Your task to perform on an android device: toggle notifications settings in the gmail app Image 0: 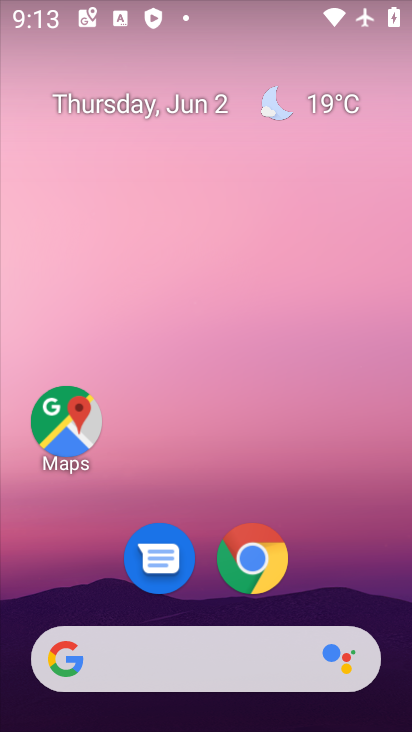
Step 0: drag from (393, 618) to (300, 92)
Your task to perform on an android device: toggle notifications settings in the gmail app Image 1: 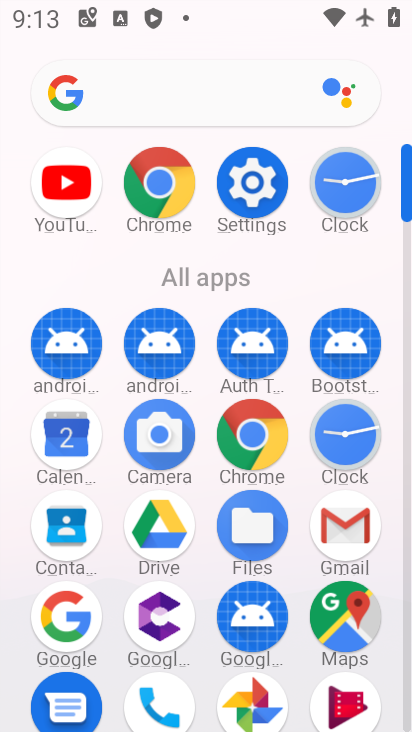
Step 1: click (342, 528)
Your task to perform on an android device: toggle notifications settings in the gmail app Image 2: 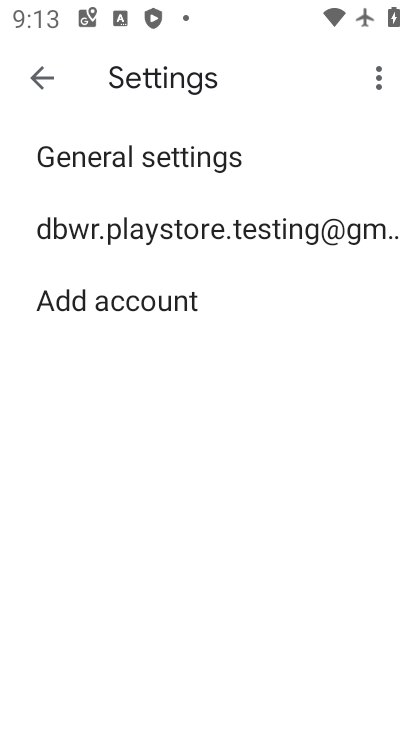
Step 2: click (202, 237)
Your task to perform on an android device: toggle notifications settings in the gmail app Image 3: 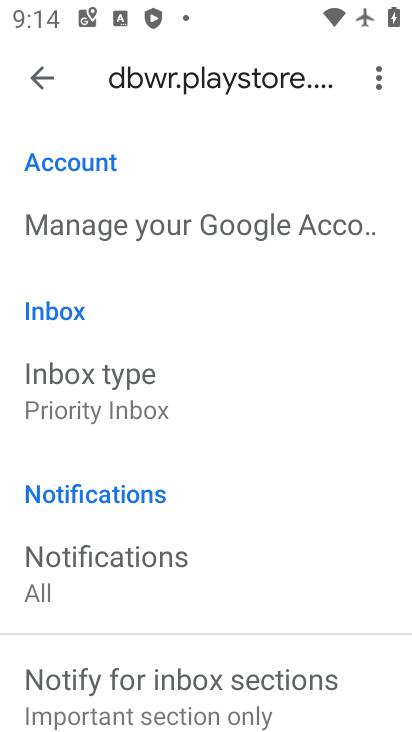
Step 3: drag from (218, 578) to (248, 237)
Your task to perform on an android device: toggle notifications settings in the gmail app Image 4: 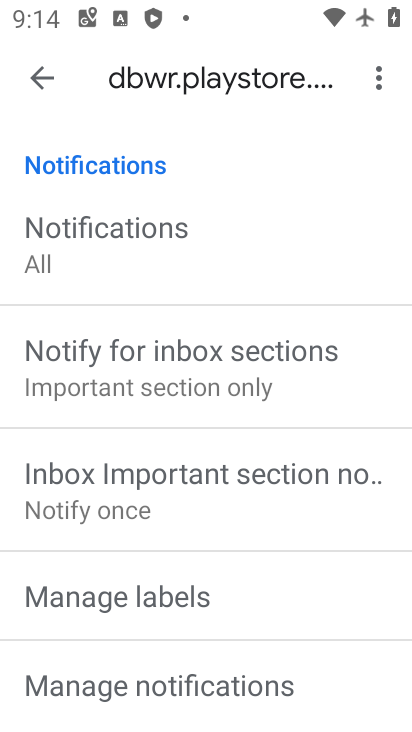
Step 4: drag from (232, 585) to (250, 116)
Your task to perform on an android device: toggle notifications settings in the gmail app Image 5: 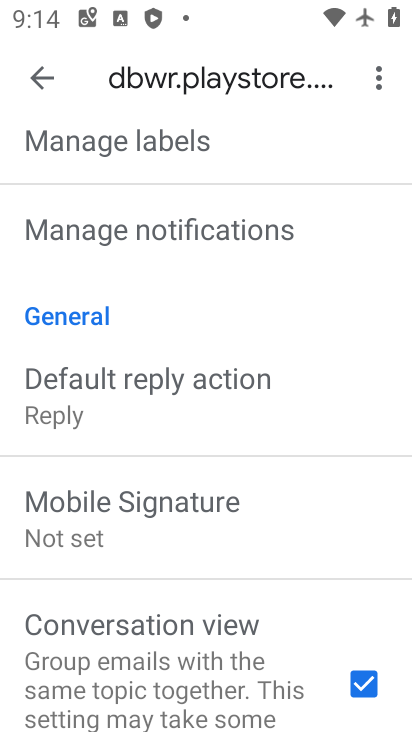
Step 5: click (149, 237)
Your task to perform on an android device: toggle notifications settings in the gmail app Image 6: 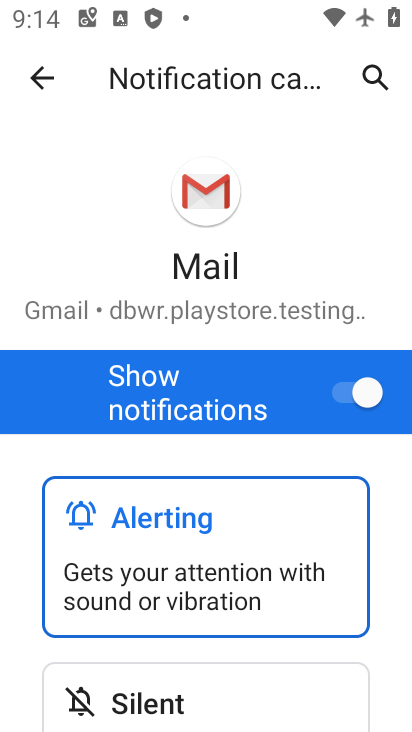
Step 6: drag from (382, 621) to (371, 498)
Your task to perform on an android device: toggle notifications settings in the gmail app Image 7: 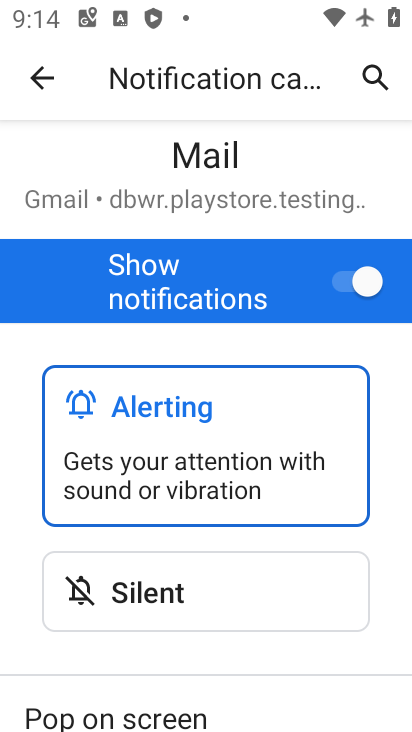
Step 7: click (342, 284)
Your task to perform on an android device: toggle notifications settings in the gmail app Image 8: 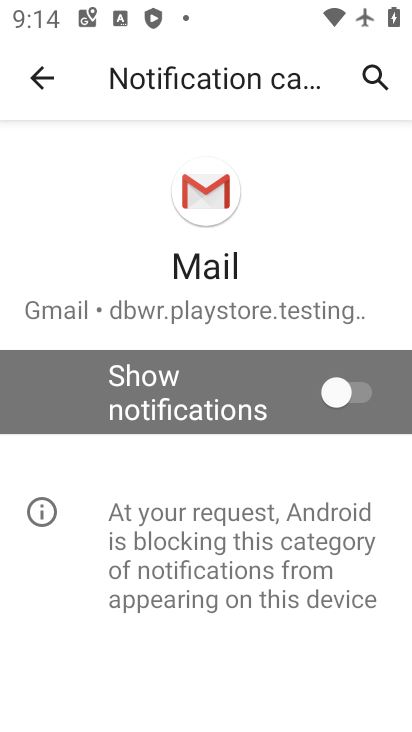
Step 8: task complete